Your task to perform on an android device: Open Google Chrome and click the shortcut for Amazon.com Image 0: 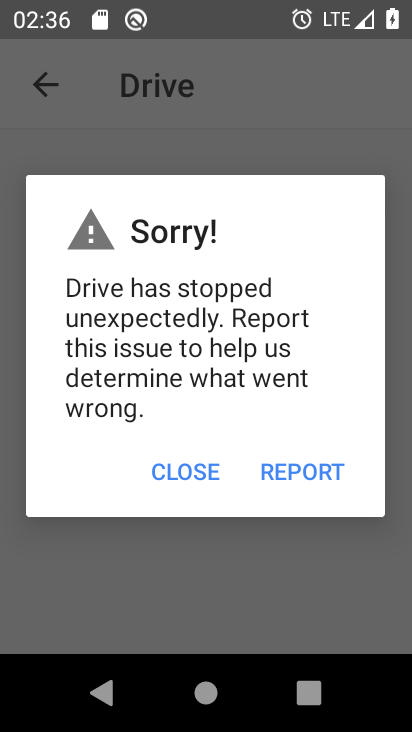
Step 0: click (199, 478)
Your task to perform on an android device: Open Google Chrome and click the shortcut for Amazon.com Image 1: 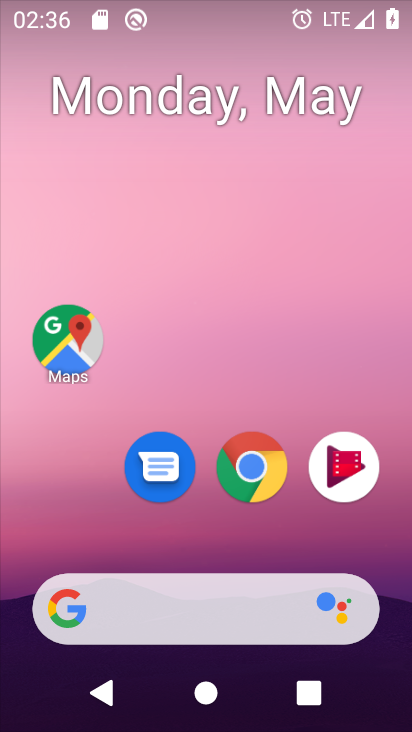
Step 1: drag from (207, 511) to (211, 164)
Your task to perform on an android device: Open Google Chrome and click the shortcut for Amazon.com Image 2: 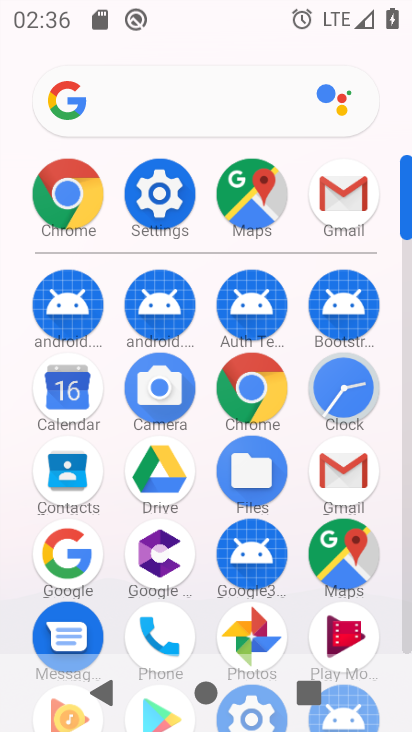
Step 2: click (75, 192)
Your task to perform on an android device: Open Google Chrome and click the shortcut for Amazon.com Image 3: 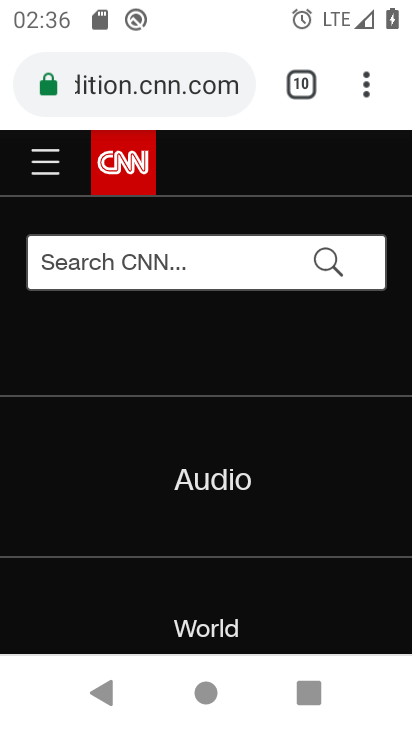
Step 3: click (349, 84)
Your task to perform on an android device: Open Google Chrome and click the shortcut for Amazon.com Image 4: 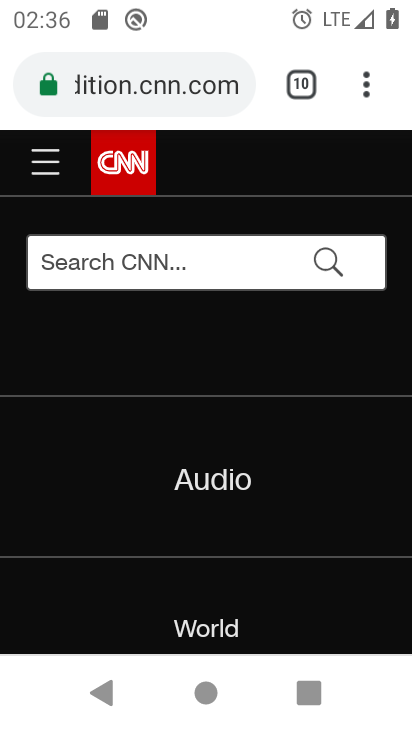
Step 4: click (368, 84)
Your task to perform on an android device: Open Google Chrome and click the shortcut for Amazon.com Image 5: 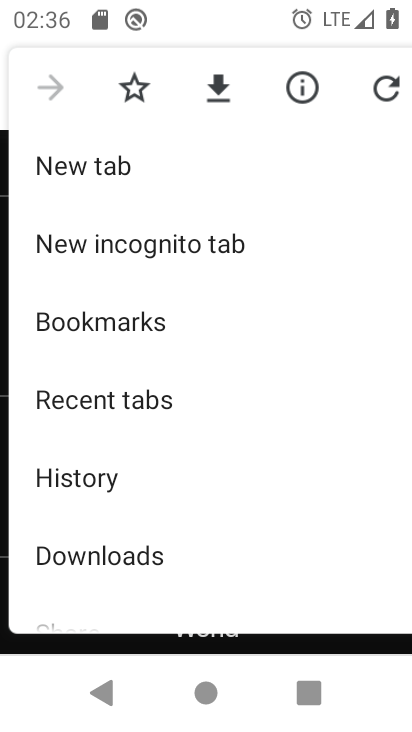
Step 5: click (120, 163)
Your task to perform on an android device: Open Google Chrome and click the shortcut for Amazon.com Image 6: 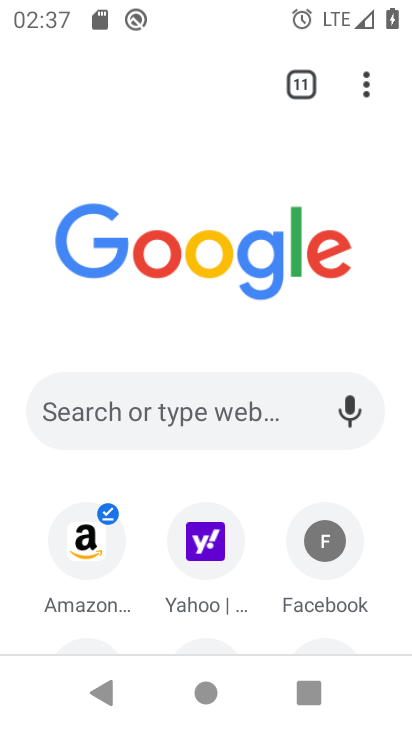
Step 6: click (75, 539)
Your task to perform on an android device: Open Google Chrome and click the shortcut for Amazon.com Image 7: 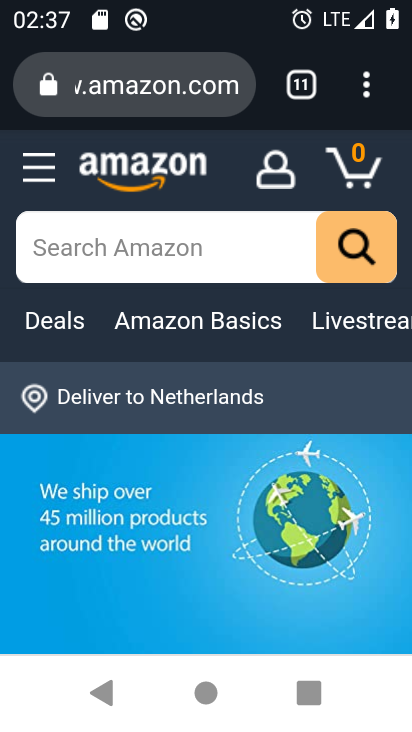
Step 7: task complete